Your task to perform on an android device: Turn off the flashlight Image 0: 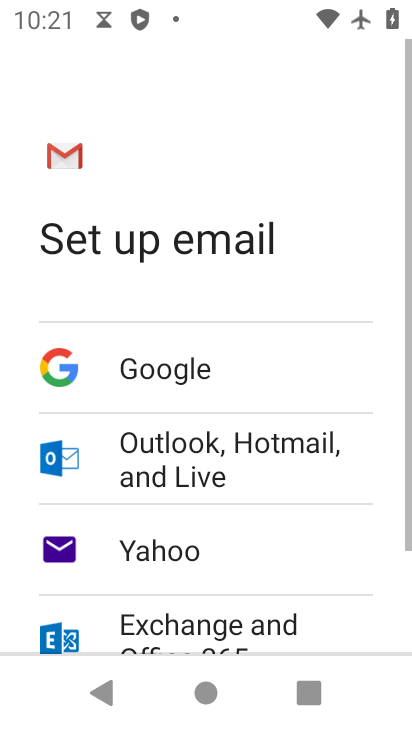
Step 0: press back button
Your task to perform on an android device: Turn off the flashlight Image 1: 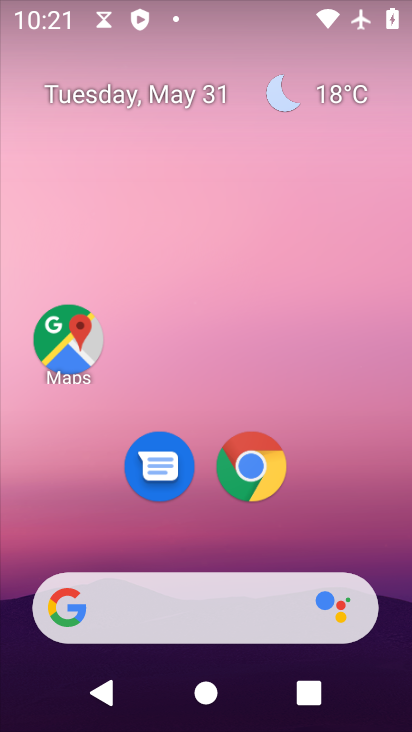
Step 1: drag from (381, 594) to (290, 37)
Your task to perform on an android device: Turn off the flashlight Image 2: 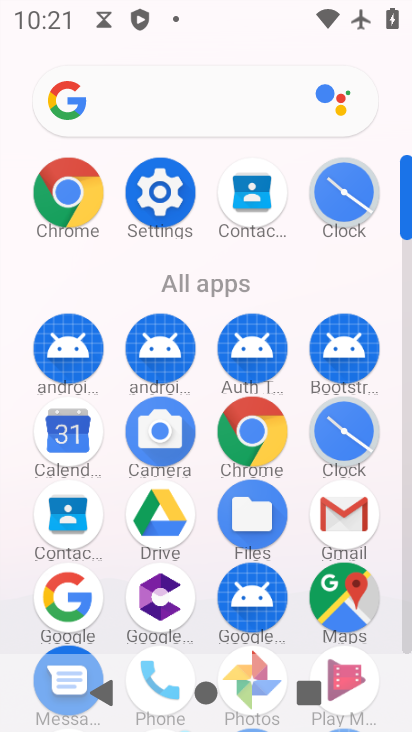
Step 2: click (163, 193)
Your task to perform on an android device: Turn off the flashlight Image 3: 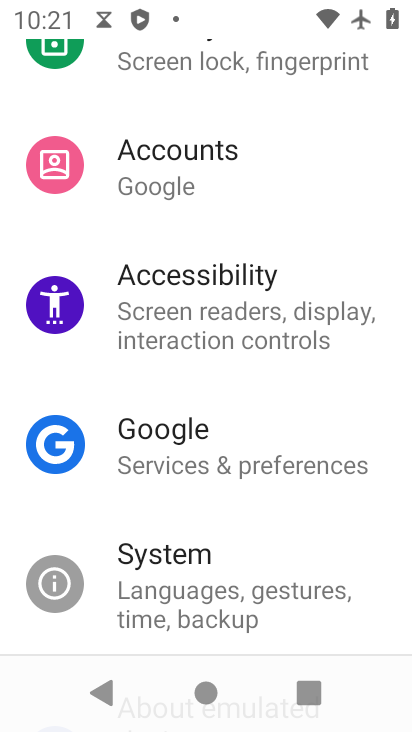
Step 3: drag from (283, 149) to (292, 569)
Your task to perform on an android device: Turn off the flashlight Image 4: 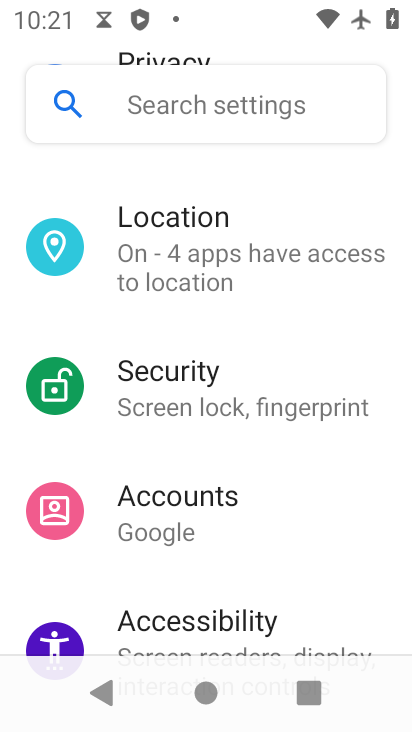
Step 4: drag from (305, 198) to (321, 549)
Your task to perform on an android device: Turn off the flashlight Image 5: 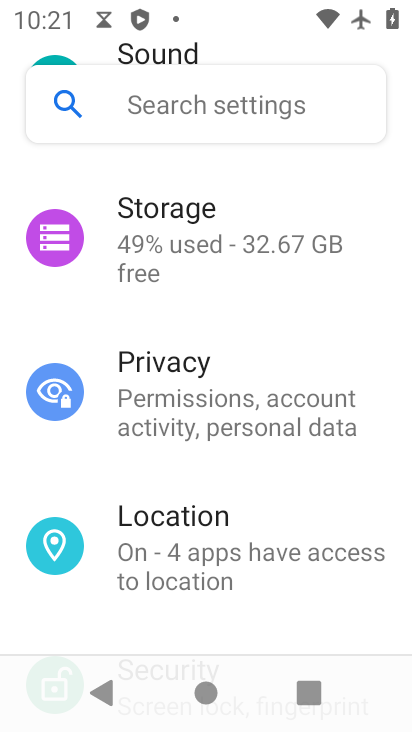
Step 5: drag from (330, 167) to (320, 500)
Your task to perform on an android device: Turn off the flashlight Image 6: 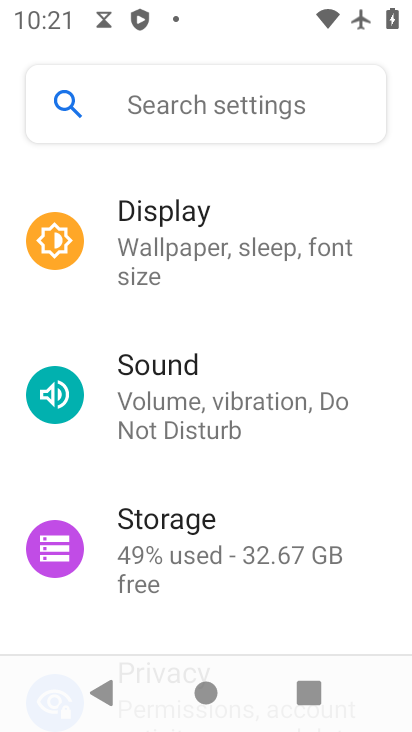
Step 6: drag from (286, 218) to (297, 490)
Your task to perform on an android device: Turn off the flashlight Image 7: 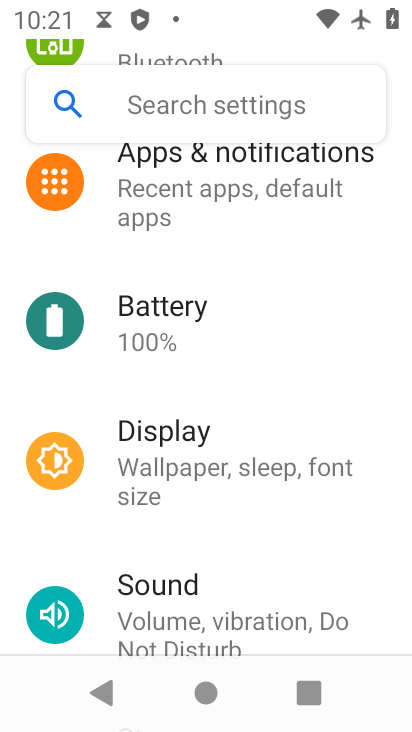
Step 7: drag from (262, 181) to (287, 558)
Your task to perform on an android device: Turn off the flashlight Image 8: 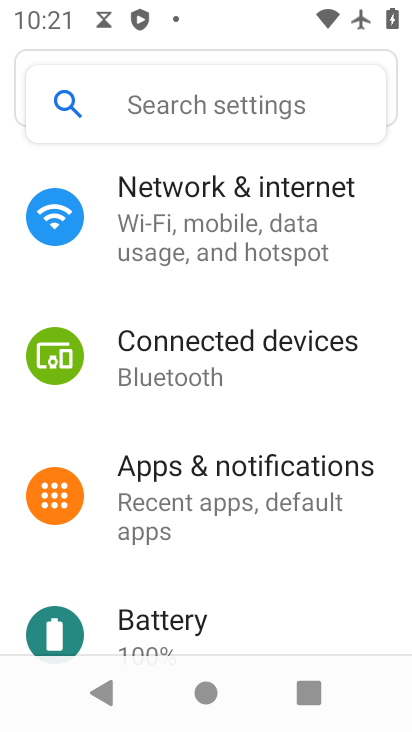
Step 8: drag from (281, 216) to (298, 525)
Your task to perform on an android device: Turn off the flashlight Image 9: 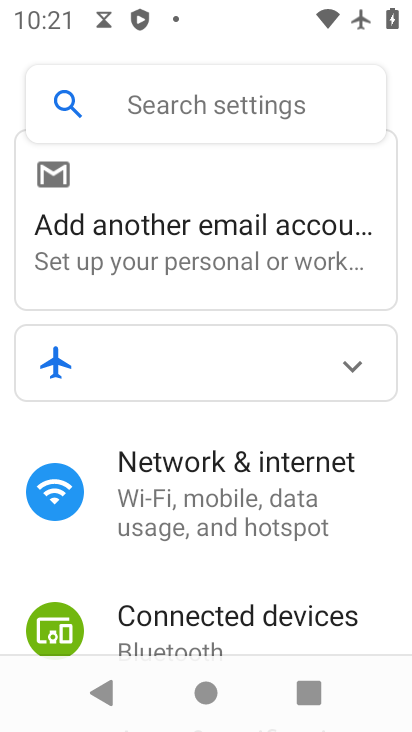
Step 9: click (253, 470)
Your task to perform on an android device: Turn off the flashlight Image 10: 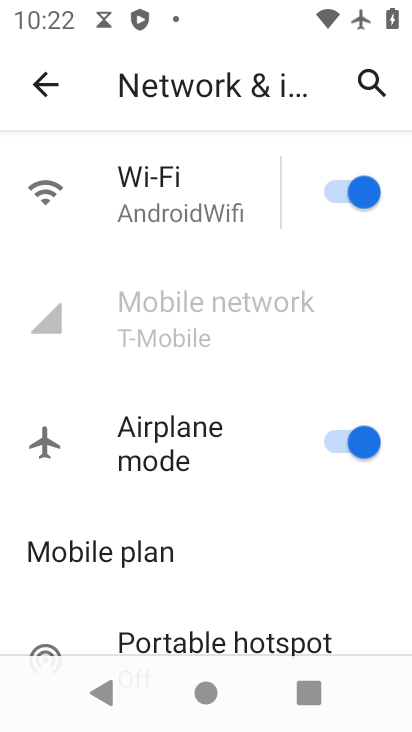
Step 10: drag from (244, 545) to (222, 152)
Your task to perform on an android device: Turn off the flashlight Image 11: 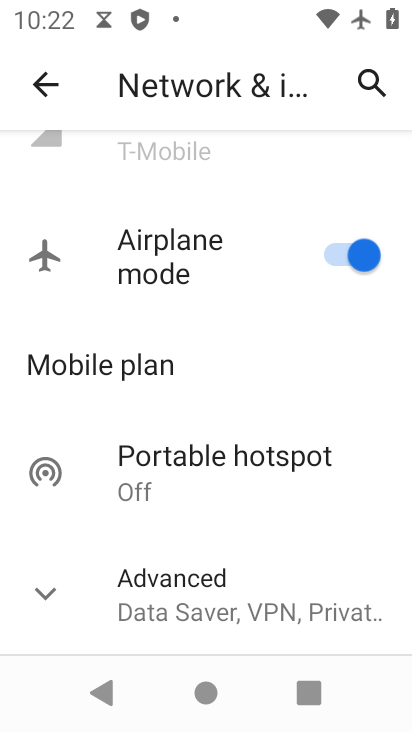
Step 11: click (49, 601)
Your task to perform on an android device: Turn off the flashlight Image 12: 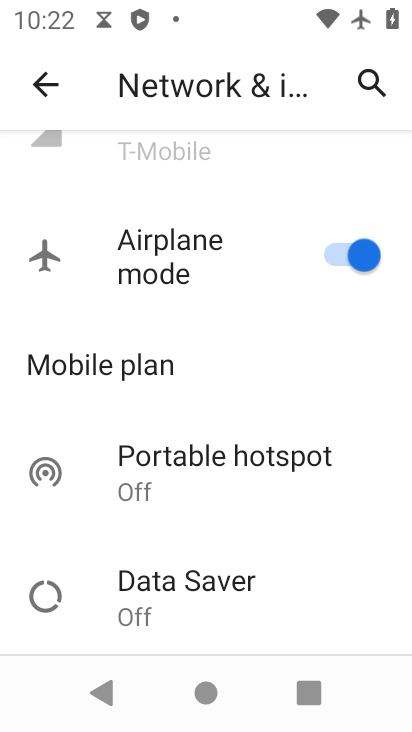
Step 12: task complete